Your task to perform on an android device: Turn off the flashlight Image 0: 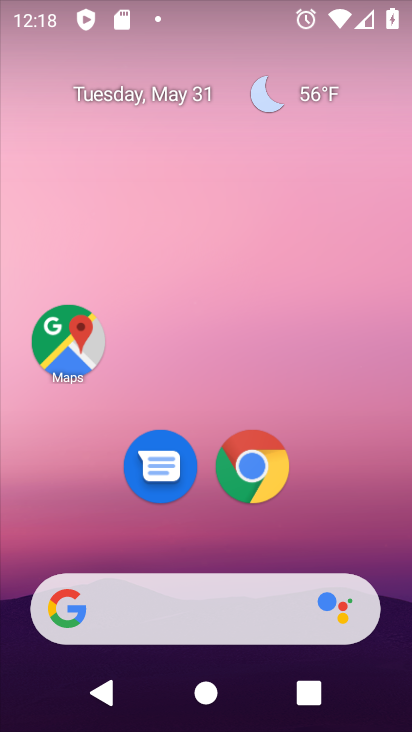
Step 0: drag from (215, 593) to (204, 215)
Your task to perform on an android device: Turn off the flashlight Image 1: 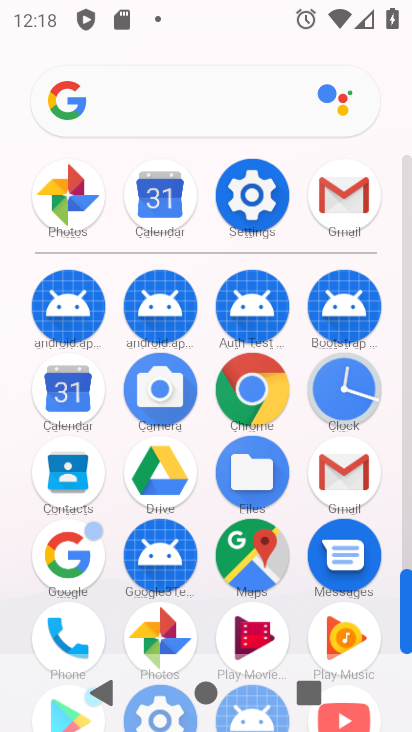
Step 1: task complete